Your task to perform on an android device: Go to Google Image 0: 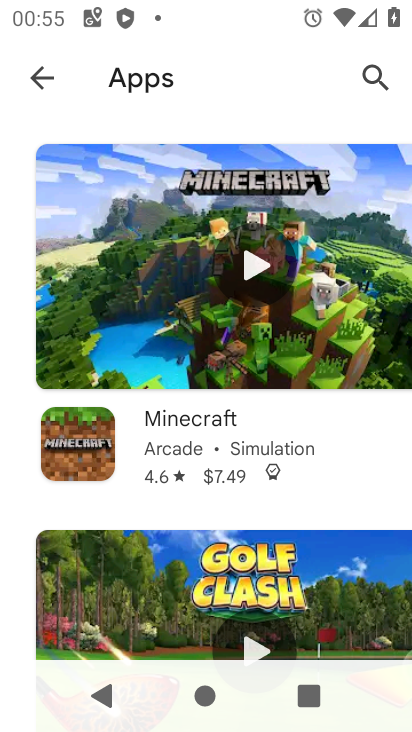
Step 0: press home button
Your task to perform on an android device: Go to Google Image 1: 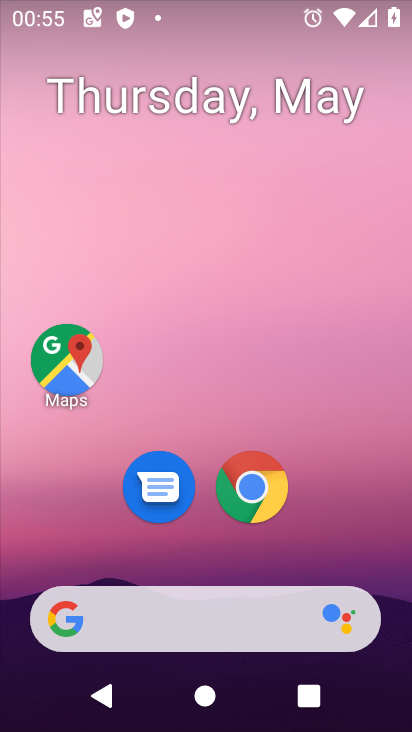
Step 1: drag from (321, 335) to (280, 12)
Your task to perform on an android device: Go to Google Image 2: 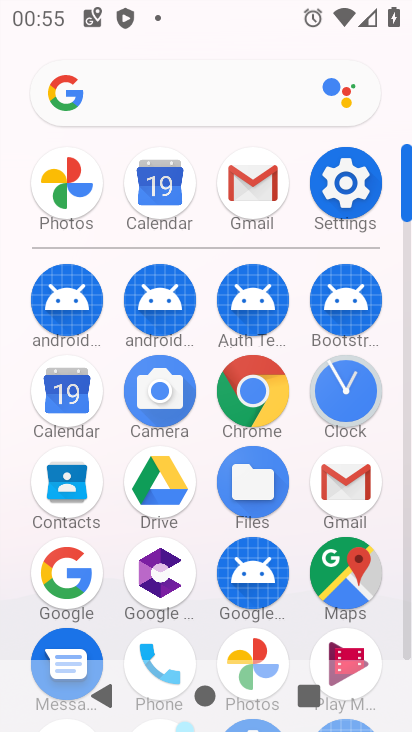
Step 2: click (76, 580)
Your task to perform on an android device: Go to Google Image 3: 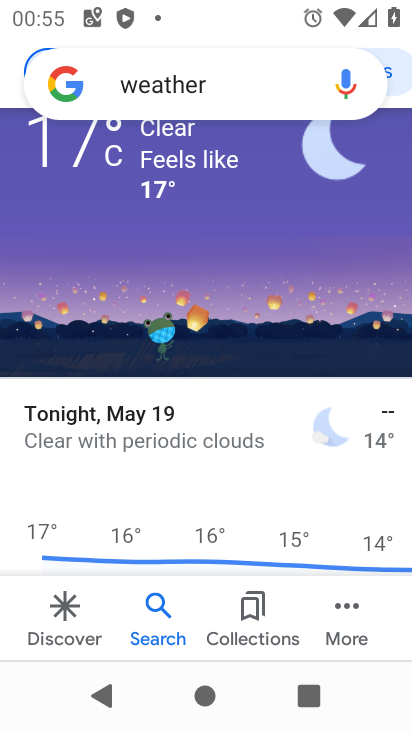
Step 3: task complete